Your task to perform on an android device: Open internet settings Image 0: 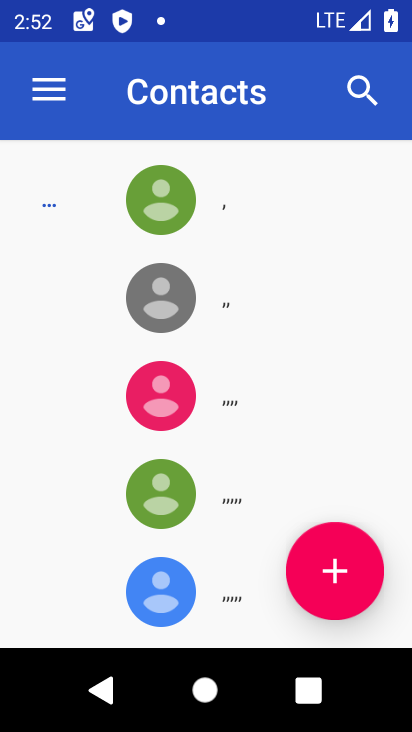
Step 0: press home button
Your task to perform on an android device: Open internet settings Image 1: 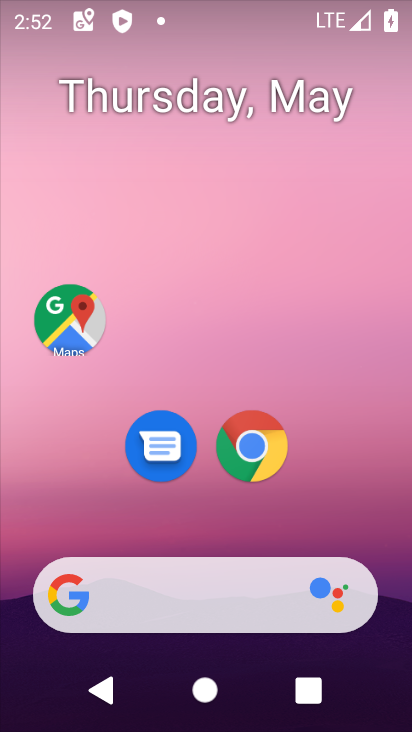
Step 1: drag from (197, 524) to (255, 34)
Your task to perform on an android device: Open internet settings Image 2: 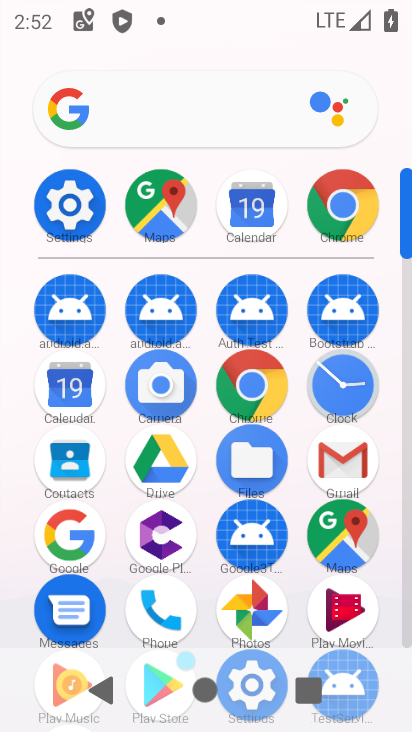
Step 2: click (63, 210)
Your task to perform on an android device: Open internet settings Image 3: 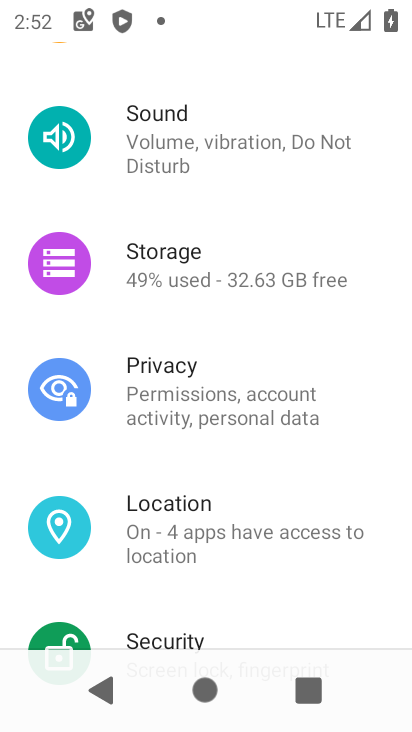
Step 3: drag from (242, 286) to (257, 540)
Your task to perform on an android device: Open internet settings Image 4: 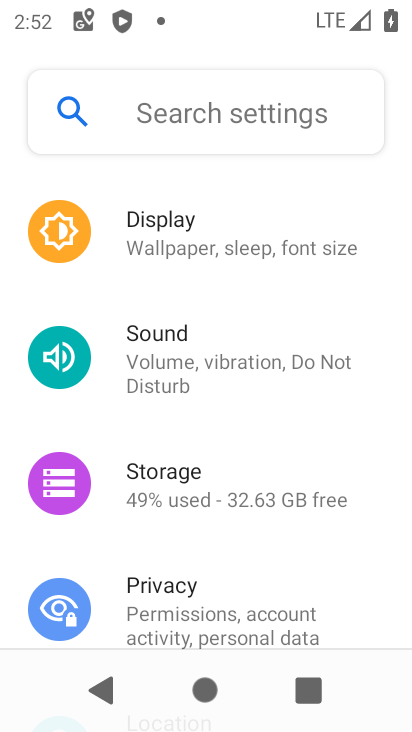
Step 4: drag from (290, 227) to (312, 464)
Your task to perform on an android device: Open internet settings Image 5: 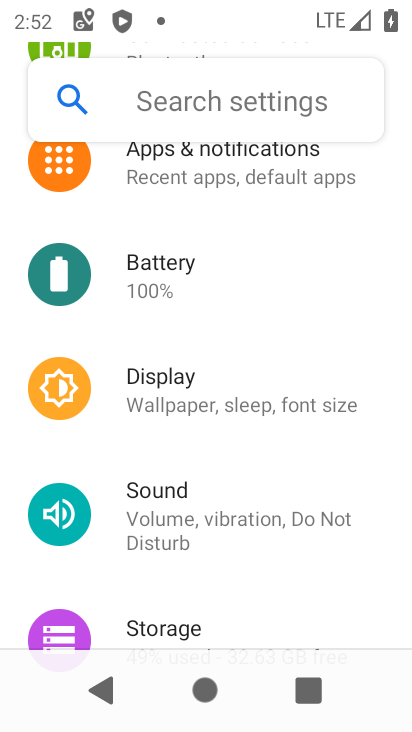
Step 5: drag from (261, 306) to (261, 549)
Your task to perform on an android device: Open internet settings Image 6: 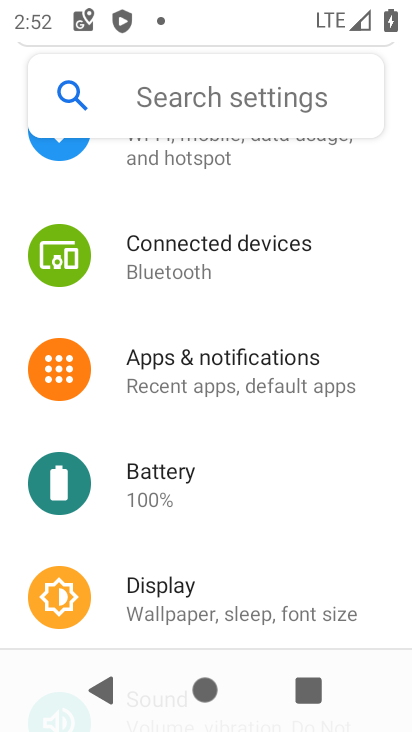
Step 6: click (223, 144)
Your task to perform on an android device: Open internet settings Image 7: 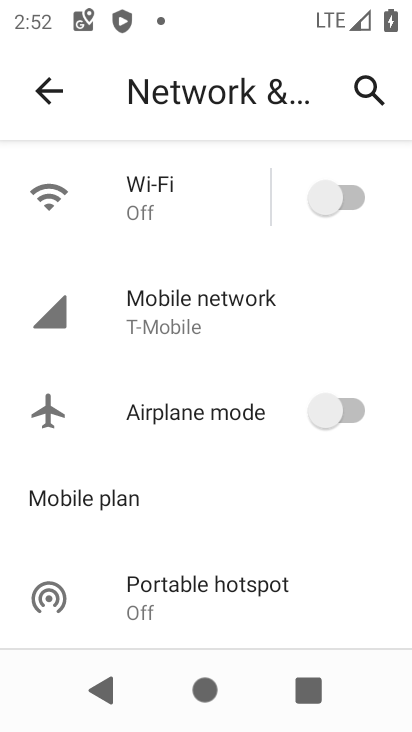
Step 7: click (146, 341)
Your task to perform on an android device: Open internet settings Image 8: 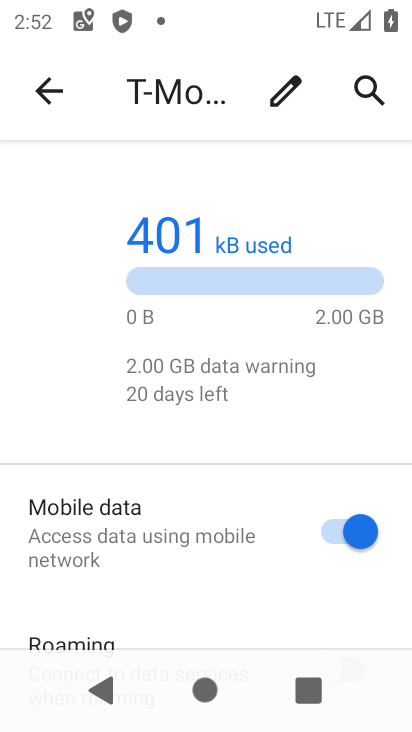
Step 8: task complete